Your task to perform on an android device: turn on sleep mode Image 0: 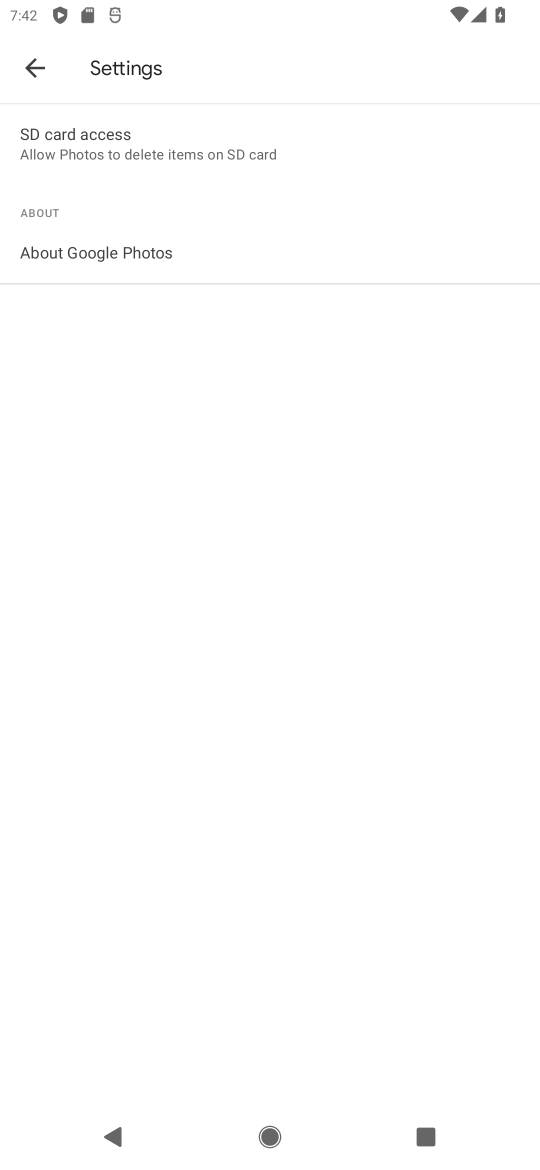
Step 0: press home button
Your task to perform on an android device: turn on sleep mode Image 1: 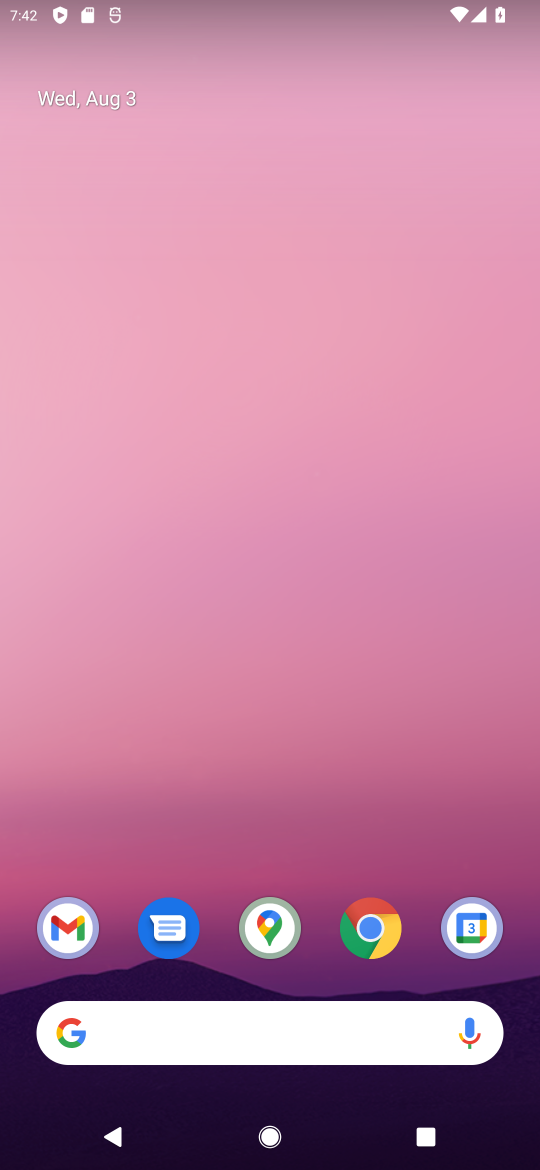
Step 1: drag from (360, 856) to (271, 73)
Your task to perform on an android device: turn on sleep mode Image 2: 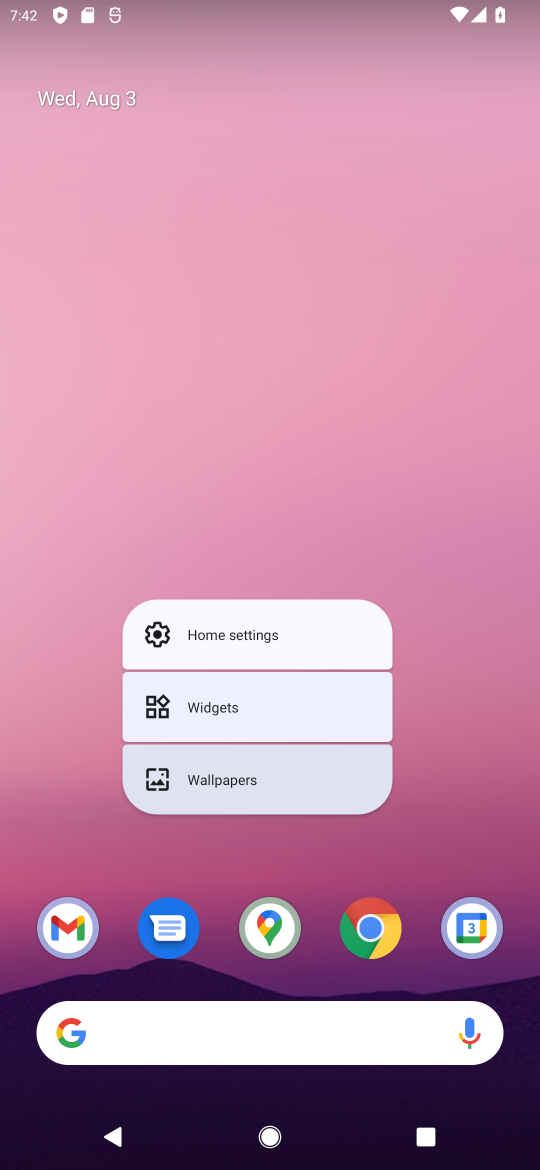
Step 2: drag from (519, 846) to (330, 6)
Your task to perform on an android device: turn on sleep mode Image 3: 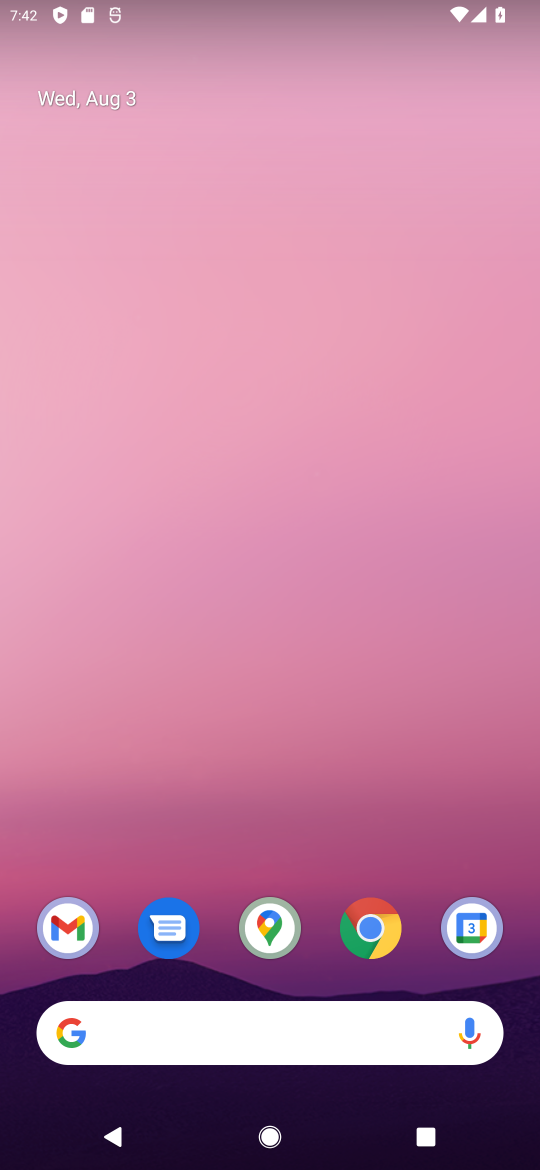
Step 3: drag from (321, 980) to (214, 216)
Your task to perform on an android device: turn on sleep mode Image 4: 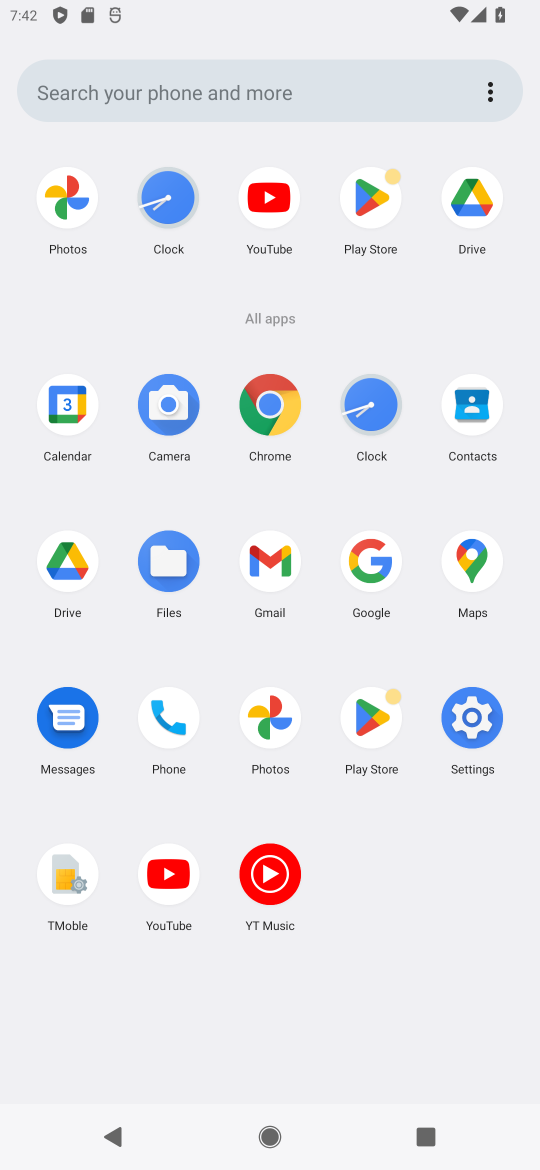
Step 4: click (480, 754)
Your task to perform on an android device: turn on sleep mode Image 5: 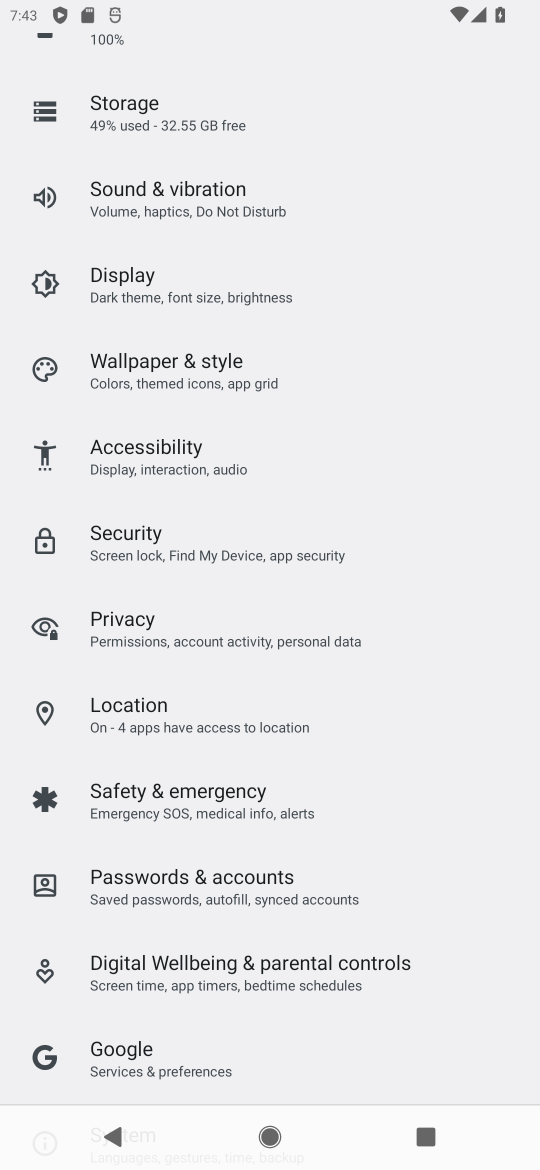
Step 5: click (196, 294)
Your task to perform on an android device: turn on sleep mode Image 6: 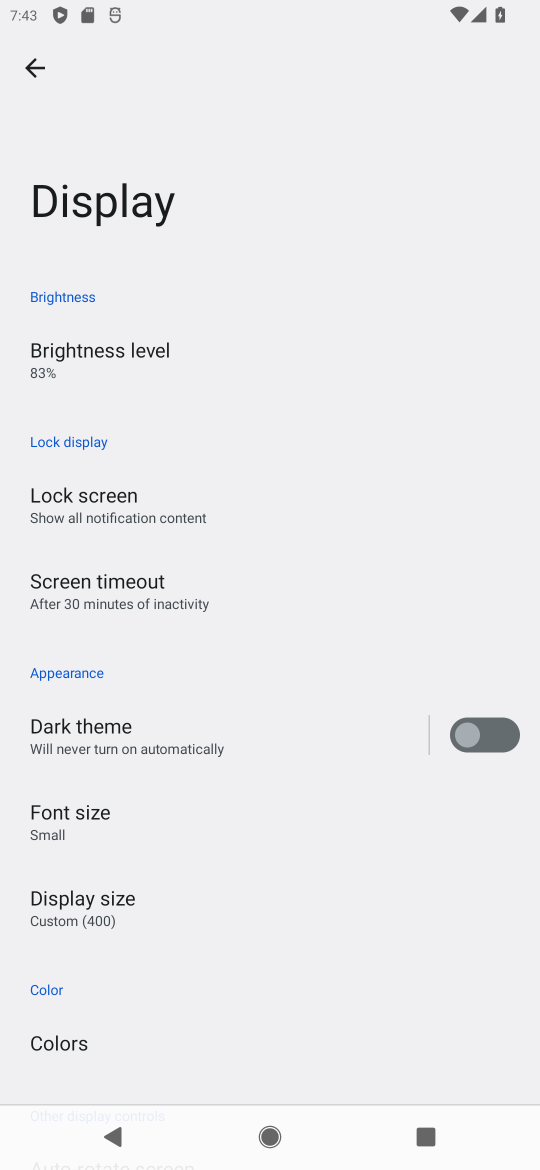
Step 6: task complete